Your task to perform on an android device: snooze an email in the gmail app Image 0: 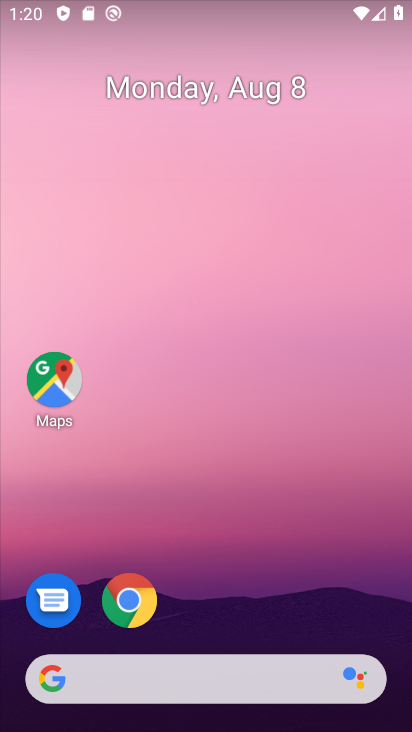
Step 0: press home button
Your task to perform on an android device: snooze an email in the gmail app Image 1: 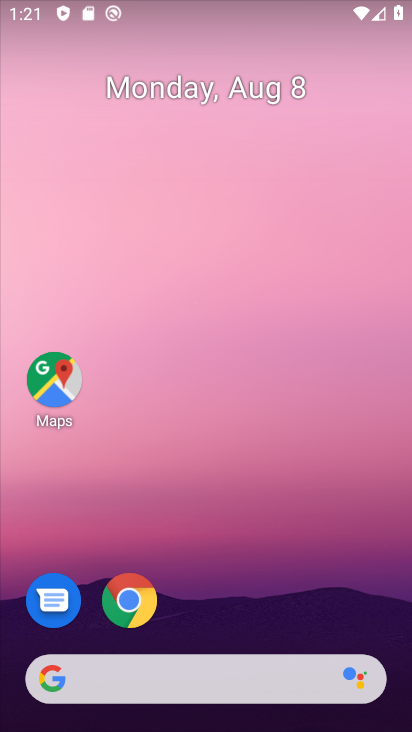
Step 1: drag from (250, 690) to (326, 231)
Your task to perform on an android device: snooze an email in the gmail app Image 2: 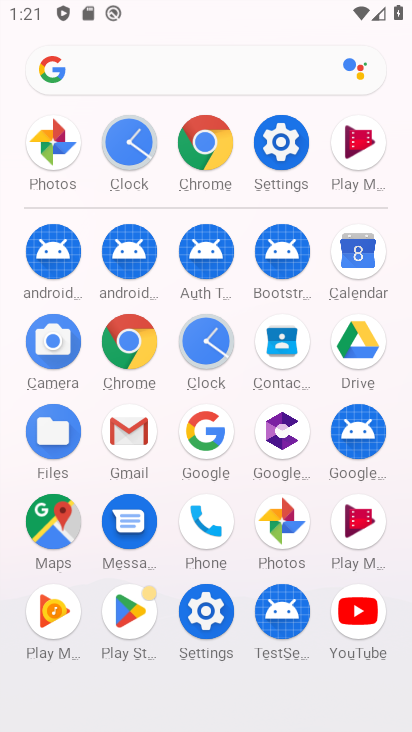
Step 2: click (141, 455)
Your task to perform on an android device: snooze an email in the gmail app Image 3: 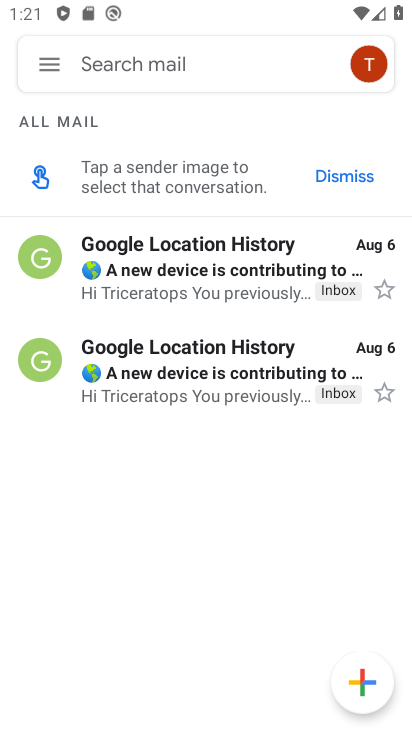
Step 3: click (249, 249)
Your task to perform on an android device: snooze an email in the gmail app Image 4: 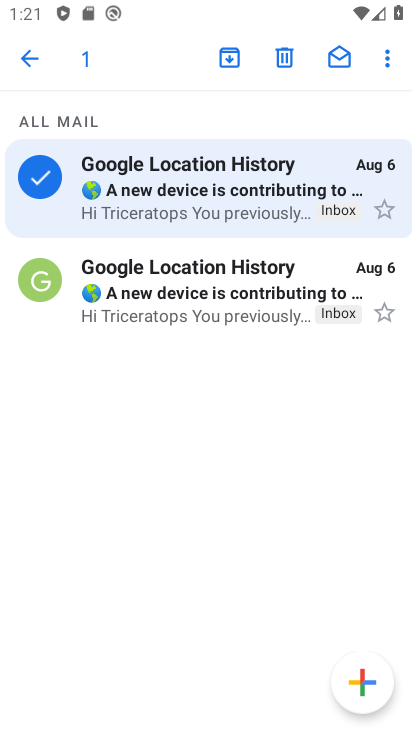
Step 4: click (392, 72)
Your task to perform on an android device: snooze an email in the gmail app Image 5: 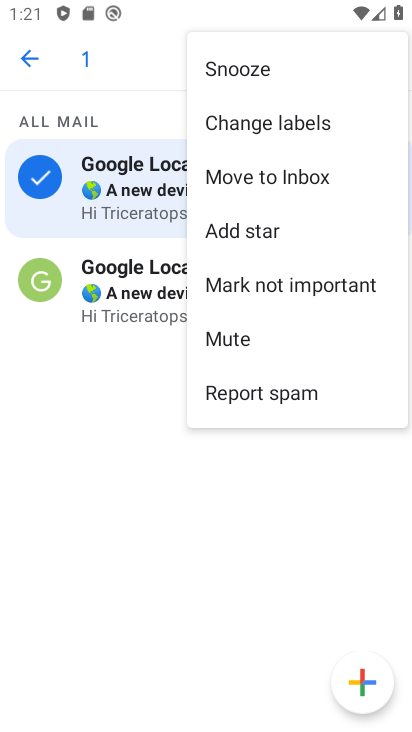
Step 5: click (261, 60)
Your task to perform on an android device: snooze an email in the gmail app Image 6: 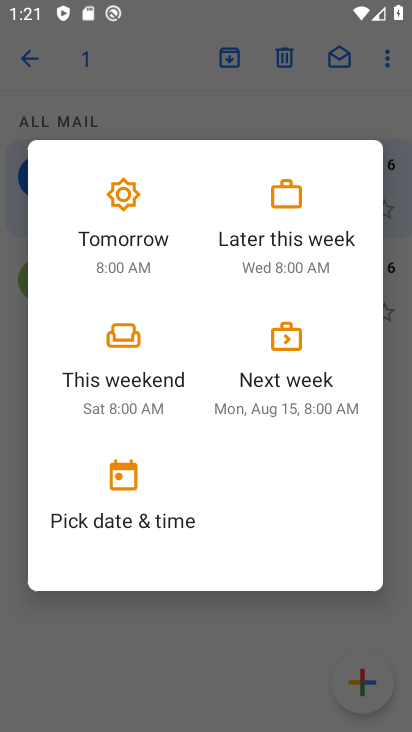
Step 6: click (269, 376)
Your task to perform on an android device: snooze an email in the gmail app Image 7: 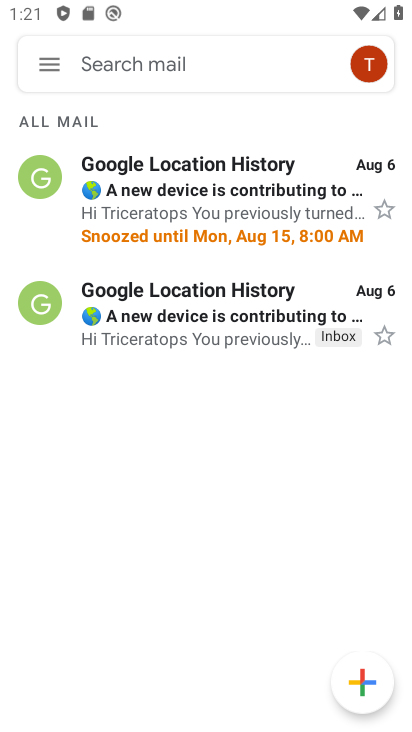
Step 7: task complete